Your task to perform on an android device: turn off improve location accuracy Image 0: 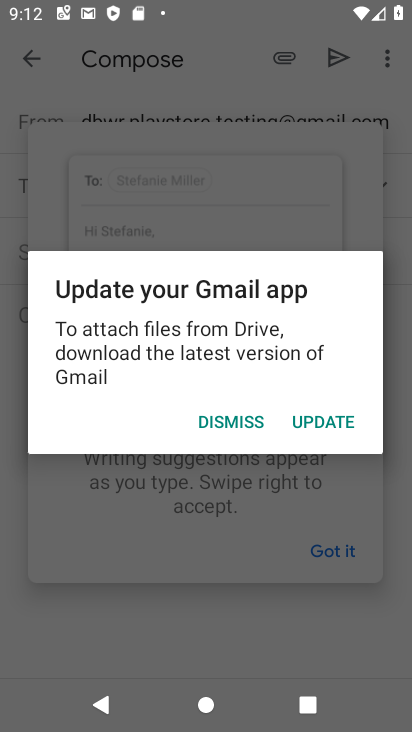
Step 0: press home button
Your task to perform on an android device: turn off improve location accuracy Image 1: 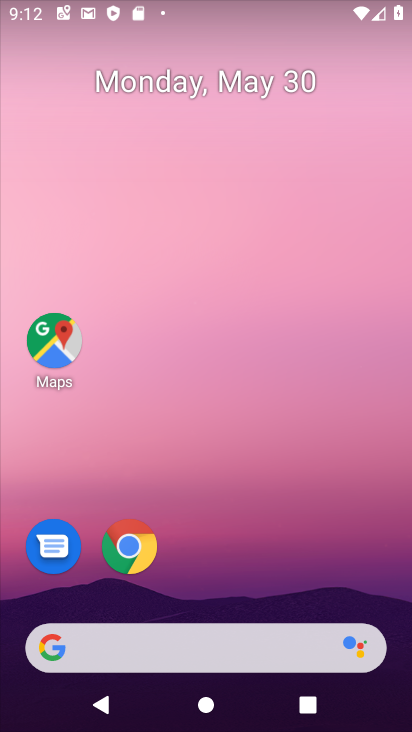
Step 1: drag from (384, 562) to (341, 131)
Your task to perform on an android device: turn off improve location accuracy Image 2: 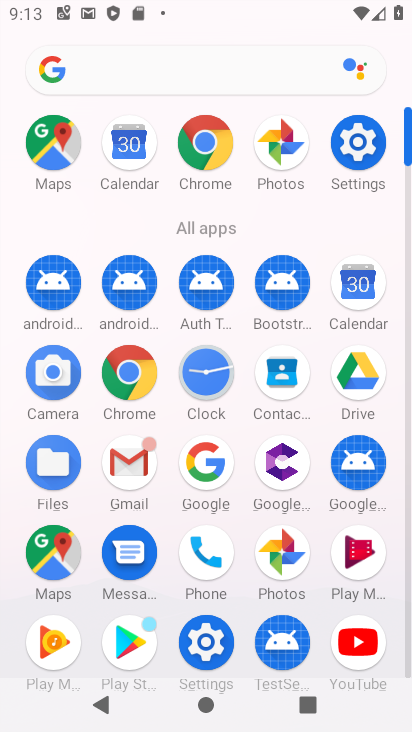
Step 2: click (347, 150)
Your task to perform on an android device: turn off improve location accuracy Image 3: 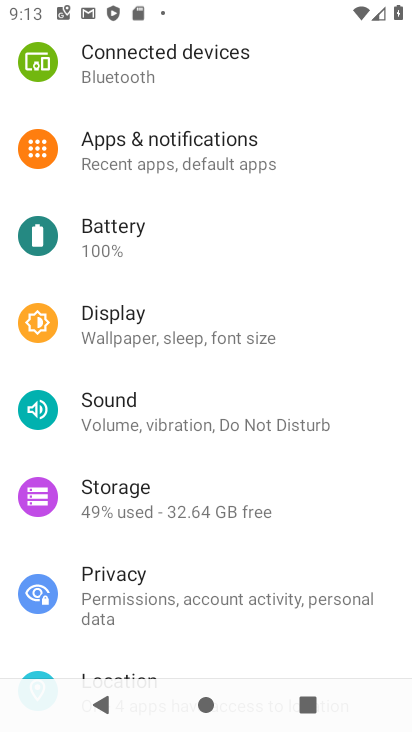
Step 3: drag from (303, 587) to (288, 298)
Your task to perform on an android device: turn off improve location accuracy Image 4: 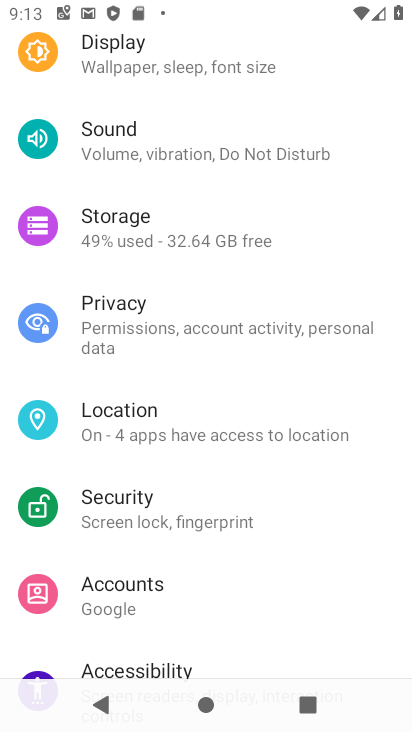
Step 4: drag from (308, 552) to (293, 245)
Your task to perform on an android device: turn off improve location accuracy Image 5: 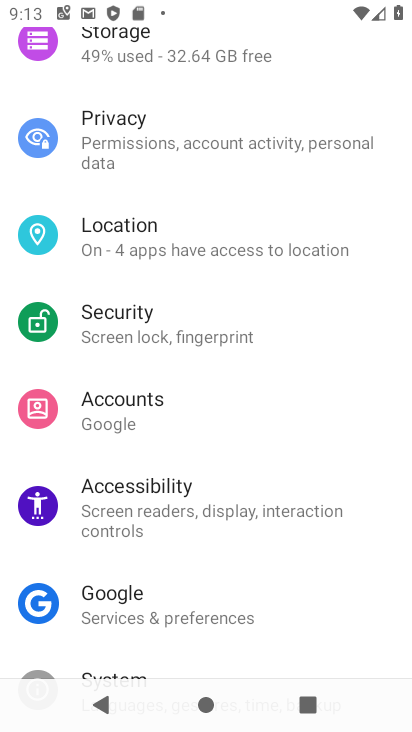
Step 5: click (209, 244)
Your task to perform on an android device: turn off improve location accuracy Image 6: 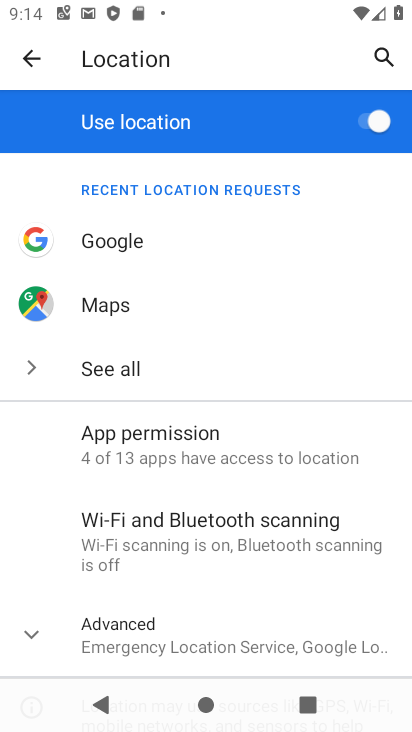
Step 6: drag from (202, 628) to (249, 313)
Your task to perform on an android device: turn off improve location accuracy Image 7: 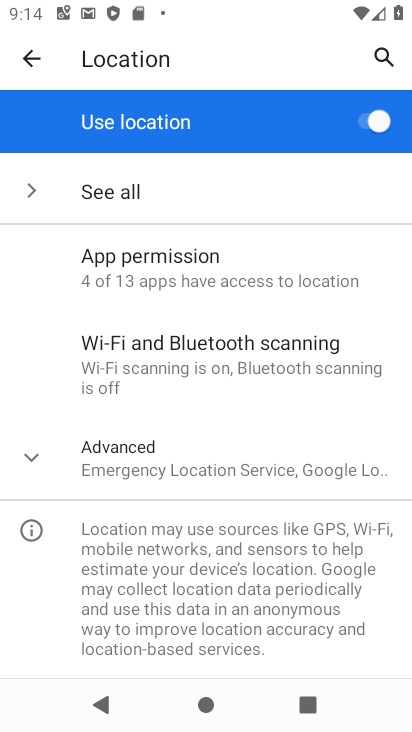
Step 7: click (209, 474)
Your task to perform on an android device: turn off improve location accuracy Image 8: 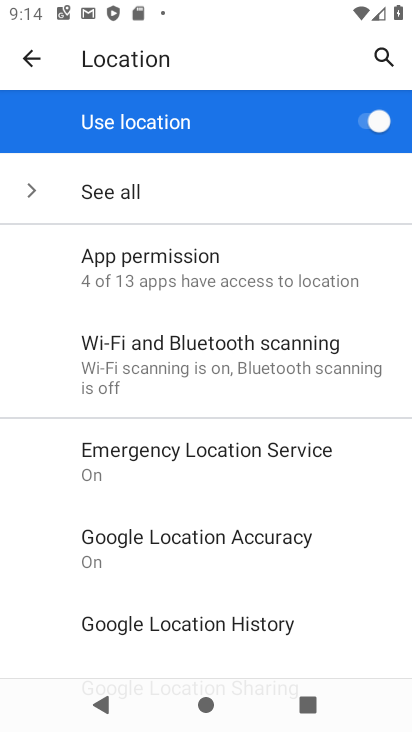
Step 8: drag from (310, 595) to (301, 359)
Your task to perform on an android device: turn off improve location accuracy Image 9: 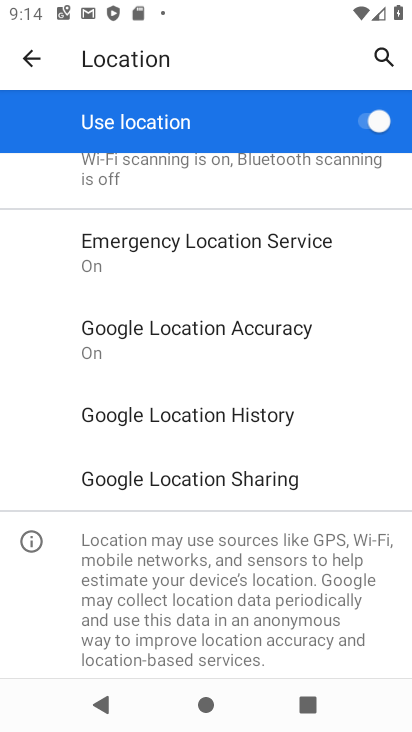
Step 9: click (267, 329)
Your task to perform on an android device: turn off improve location accuracy Image 10: 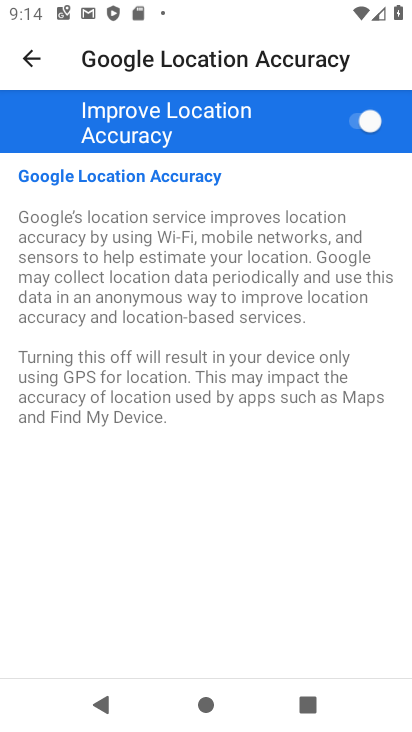
Step 10: click (354, 122)
Your task to perform on an android device: turn off improve location accuracy Image 11: 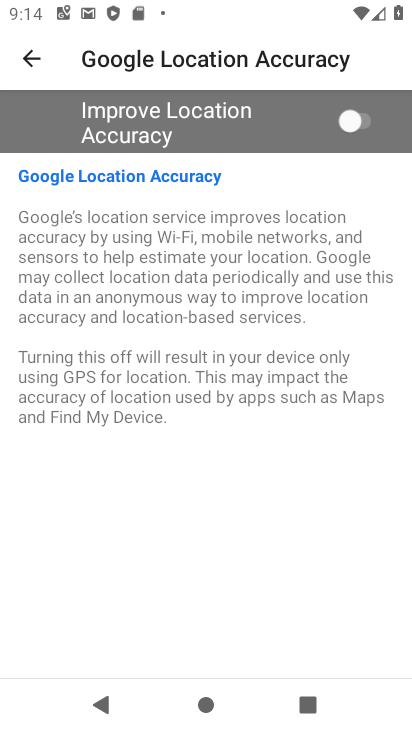
Step 11: task complete